Your task to perform on an android device: turn on sleep mode Image 0: 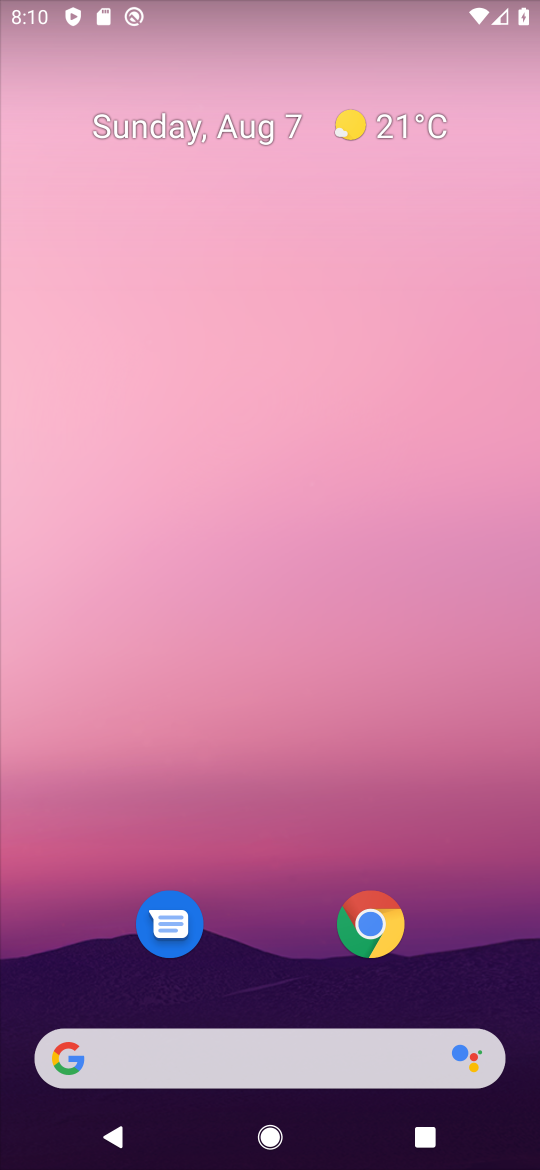
Step 0: drag from (272, 836) to (224, 0)
Your task to perform on an android device: turn on sleep mode Image 1: 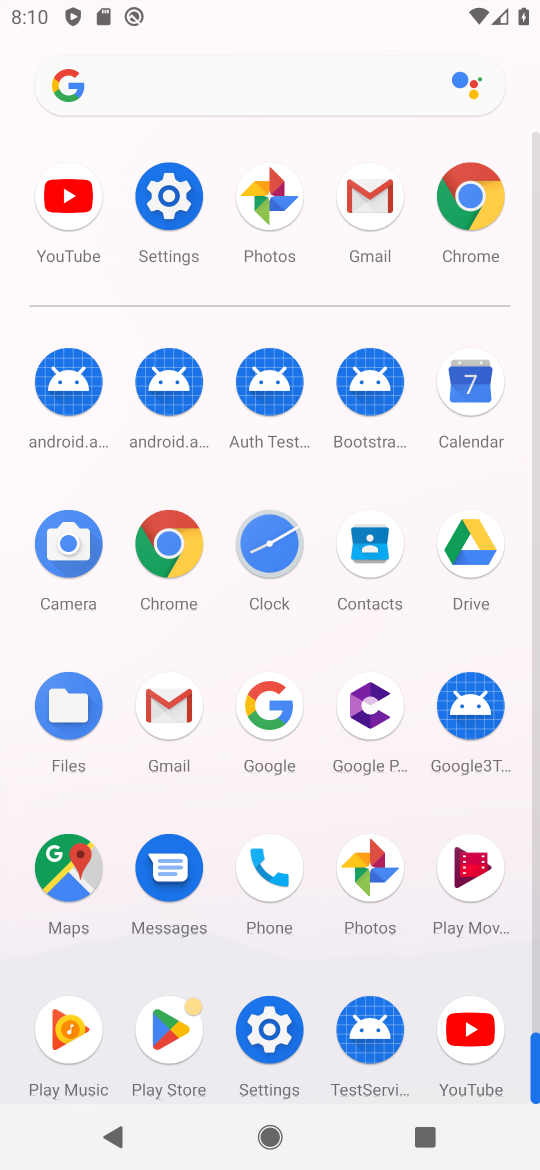
Step 1: click (172, 208)
Your task to perform on an android device: turn on sleep mode Image 2: 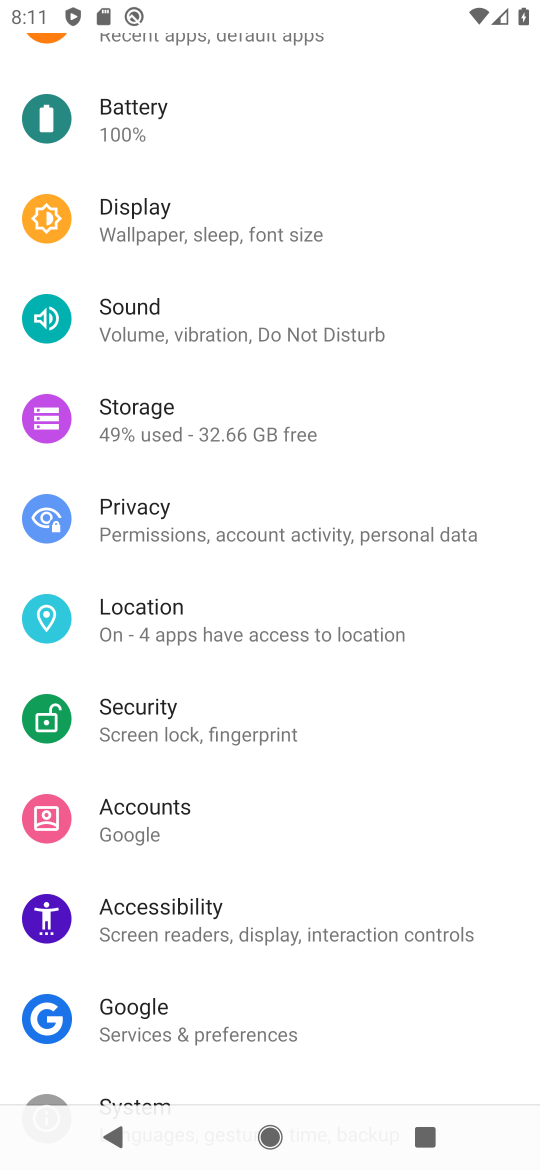
Step 2: click (221, 232)
Your task to perform on an android device: turn on sleep mode Image 3: 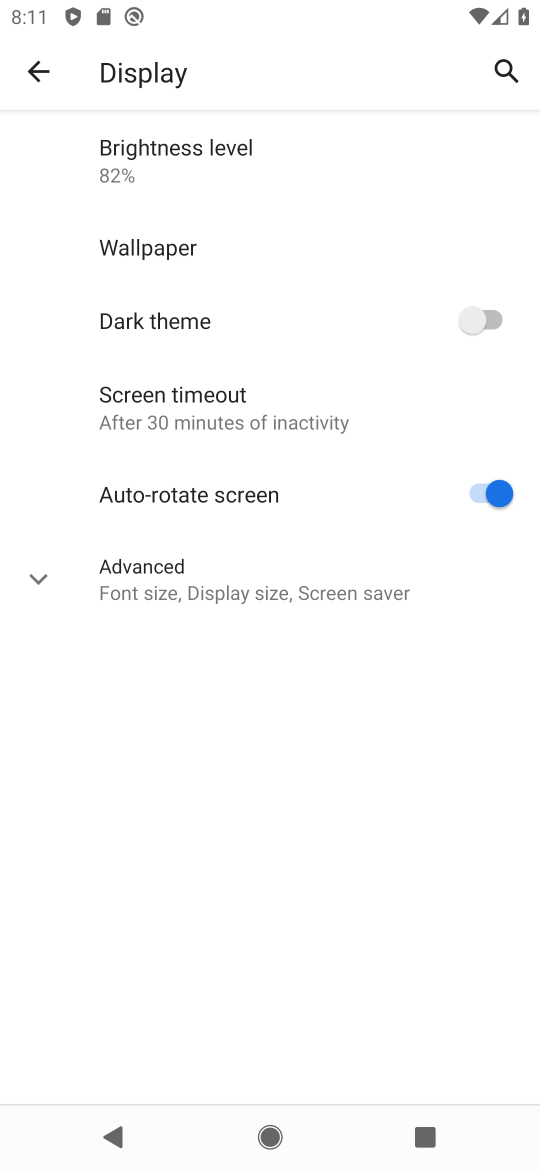
Step 3: click (30, 572)
Your task to perform on an android device: turn on sleep mode Image 4: 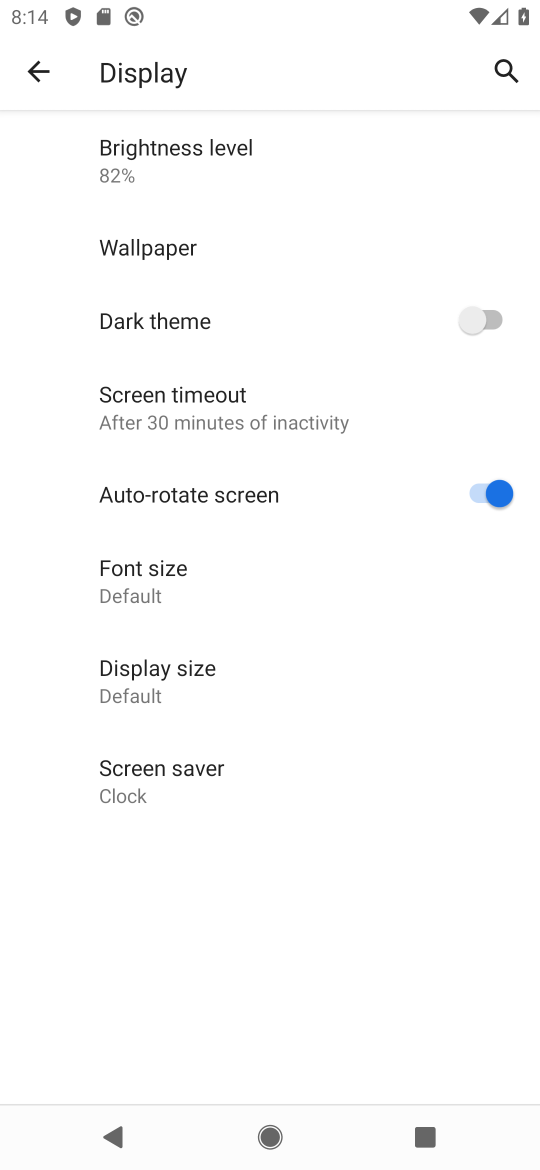
Step 4: task complete